Your task to perform on an android device: change the upload size in google photos Image 0: 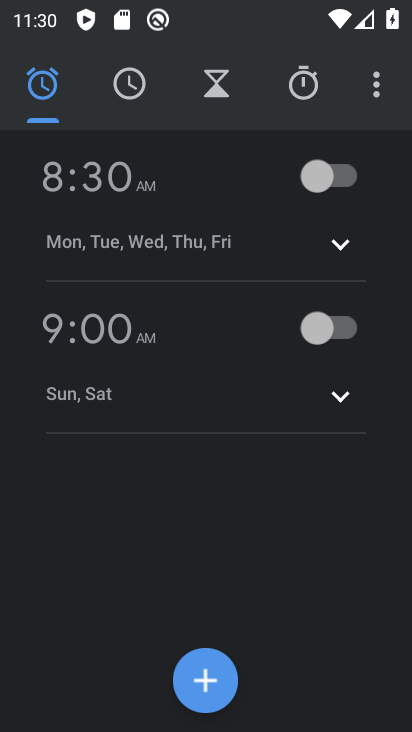
Step 0: press home button
Your task to perform on an android device: change the upload size in google photos Image 1: 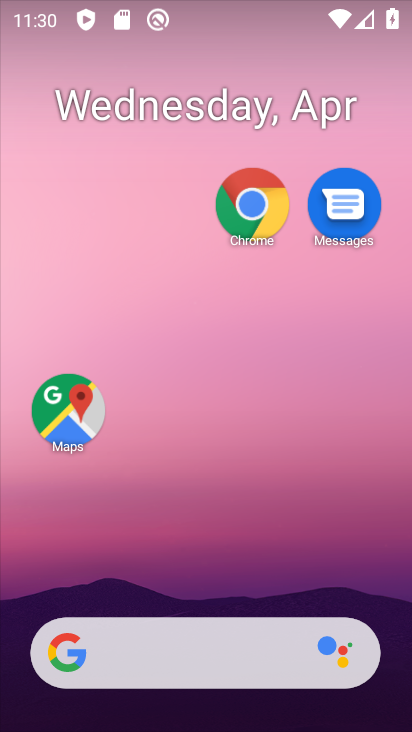
Step 1: drag from (221, 620) to (229, 2)
Your task to perform on an android device: change the upload size in google photos Image 2: 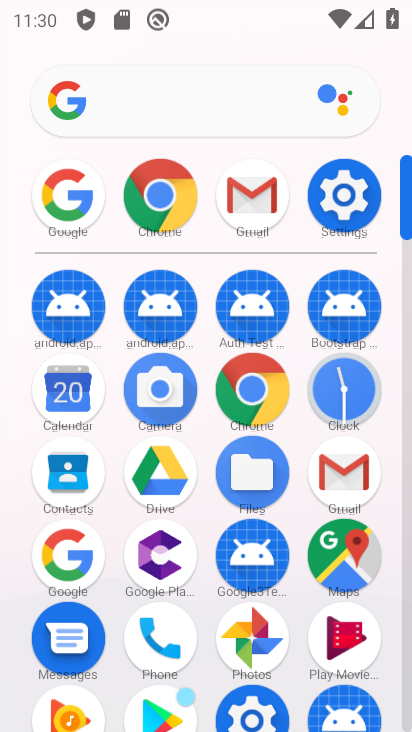
Step 2: click (245, 653)
Your task to perform on an android device: change the upload size in google photos Image 3: 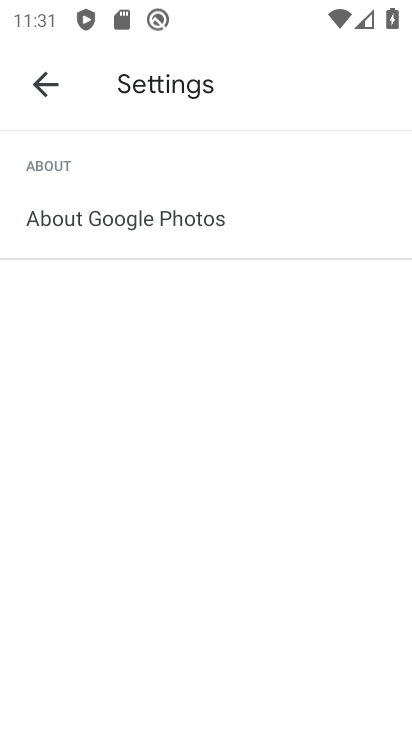
Step 3: click (42, 88)
Your task to perform on an android device: change the upload size in google photos Image 4: 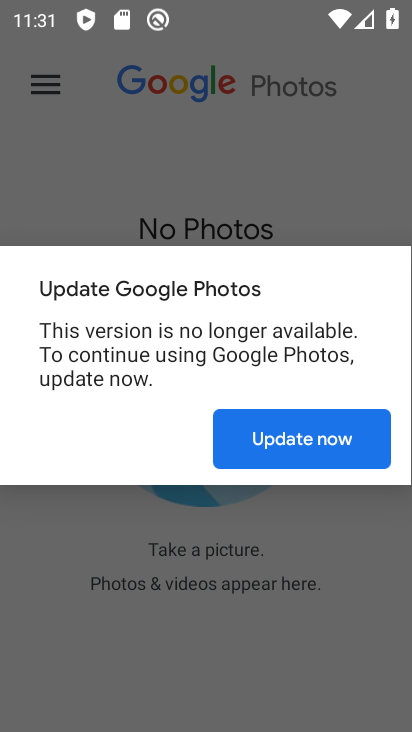
Step 4: click (283, 457)
Your task to perform on an android device: change the upload size in google photos Image 5: 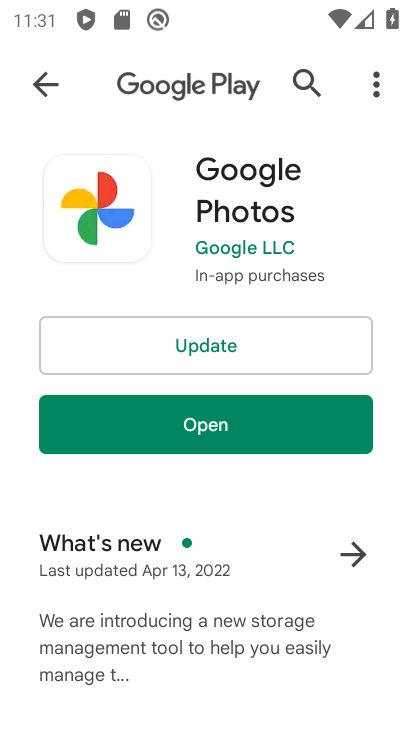
Step 5: click (150, 425)
Your task to perform on an android device: change the upload size in google photos Image 6: 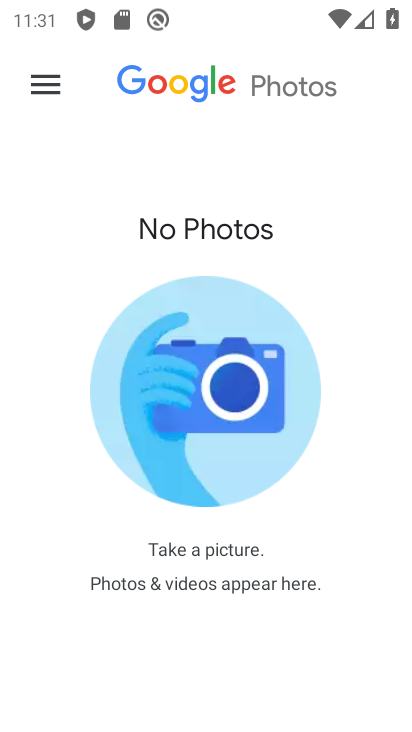
Step 6: click (57, 79)
Your task to perform on an android device: change the upload size in google photos Image 7: 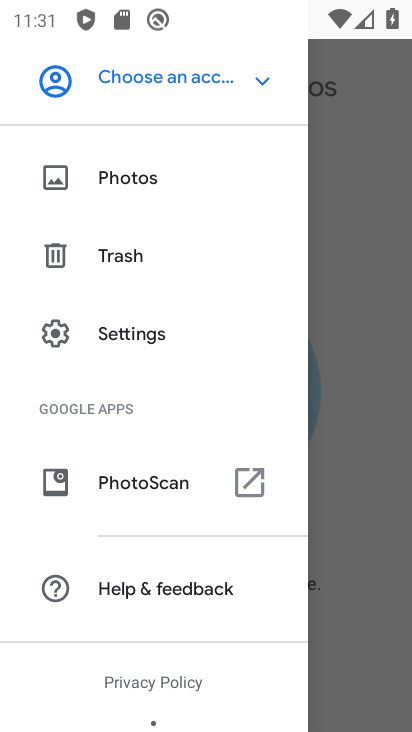
Step 7: click (96, 83)
Your task to perform on an android device: change the upload size in google photos Image 8: 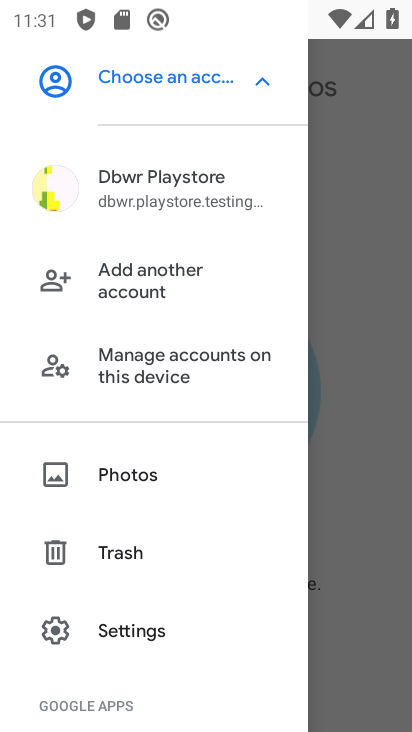
Step 8: click (133, 197)
Your task to perform on an android device: change the upload size in google photos Image 9: 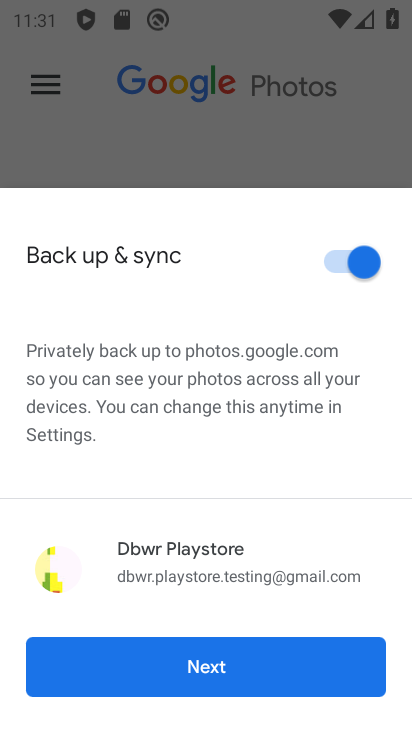
Step 9: drag from (196, 489) to (173, 175)
Your task to perform on an android device: change the upload size in google photos Image 10: 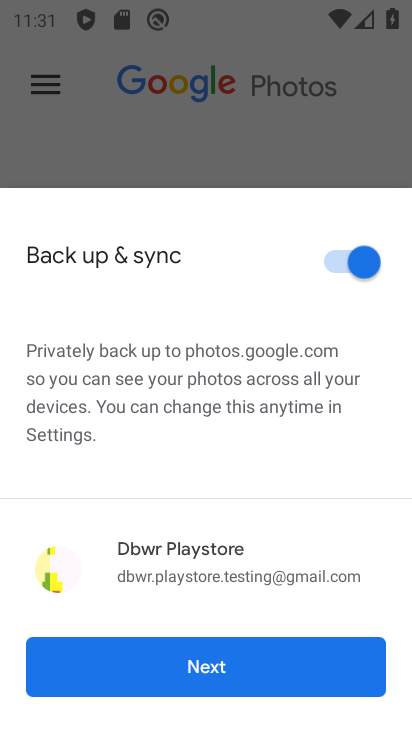
Step 10: click (219, 666)
Your task to perform on an android device: change the upload size in google photos Image 11: 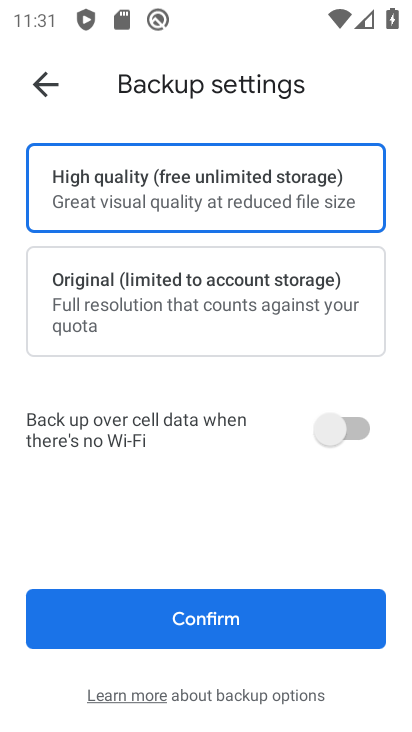
Step 11: click (196, 328)
Your task to perform on an android device: change the upload size in google photos Image 12: 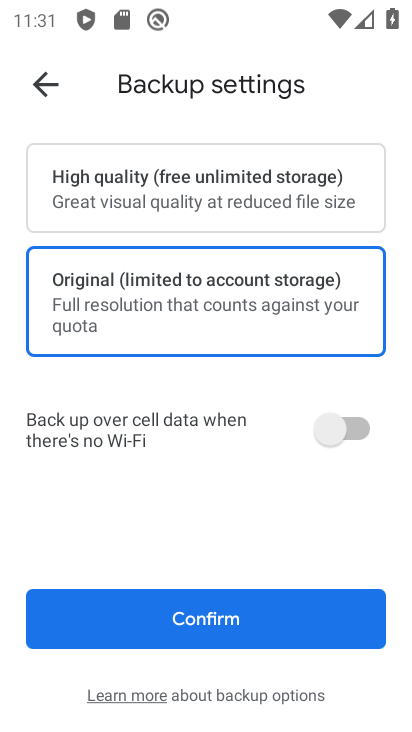
Step 12: click (229, 613)
Your task to perform on an android device: change the upload size in google photos Image 13: 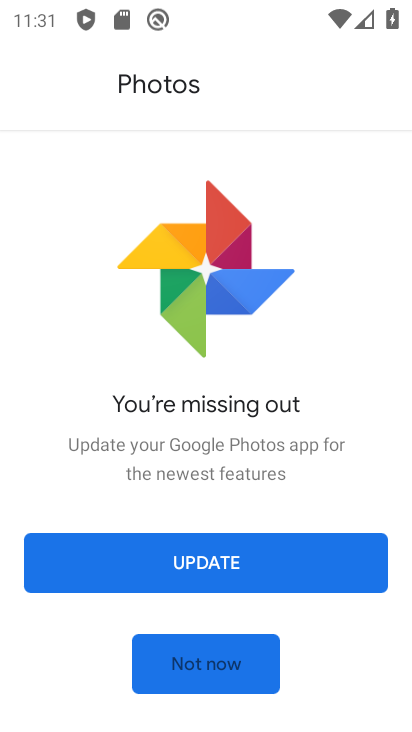
Step 13: task complete